Your task to perform on an android device: turn off improve location accuracy Image 0: 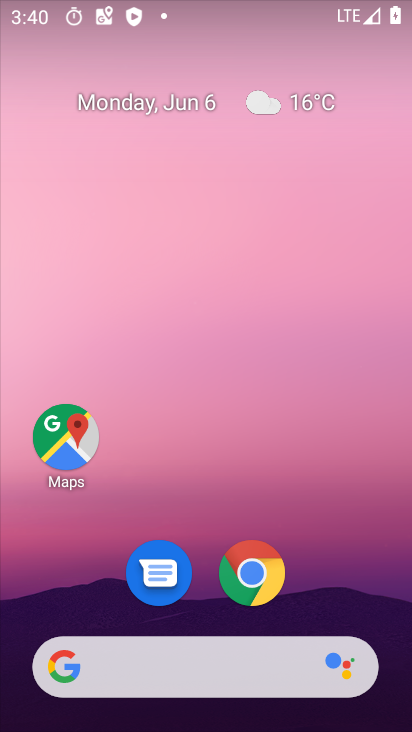
Step 0: drag from (372, 613) to (370, 217)
Your task to perform on an android device: turn off improve location accuracy Image 1: 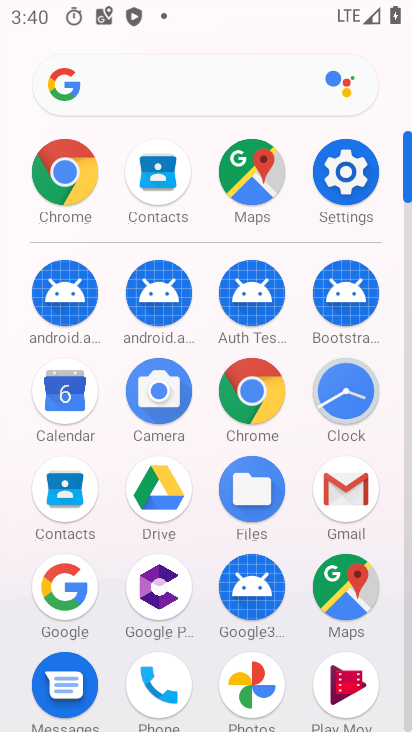
Step 1: click (349, 191)
Your task to perform on an android device: turn off improve location accuracy Image 2: 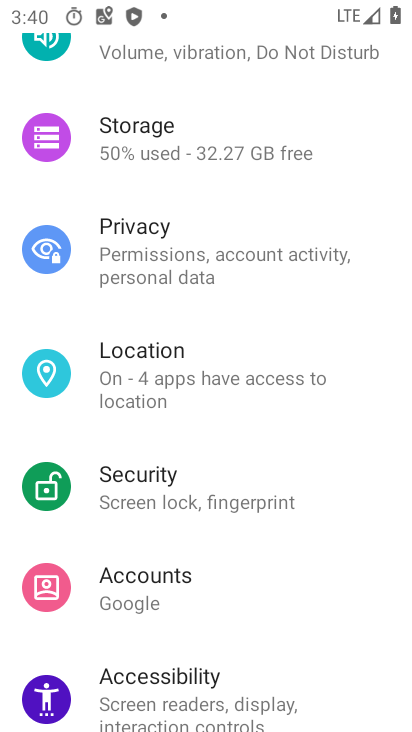
Step 2: click (337, 366)
Your task to perform on an android device: turn off improve location accuracy Image 3: 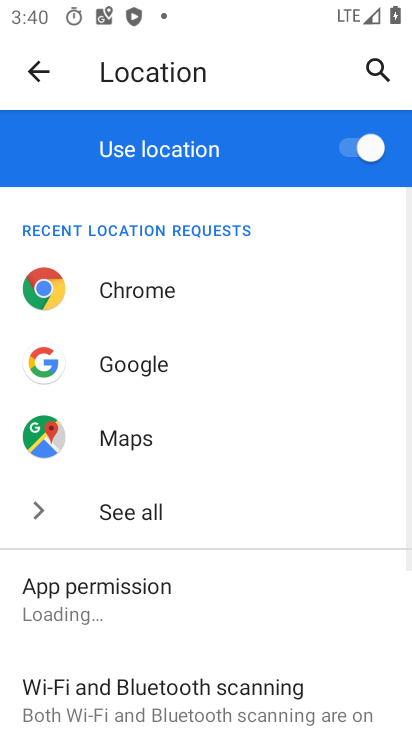
Step 3: drag from (330, 540) to (332, 476)
Your task to perform on an android device: turn off improve location accuracy Image 4: 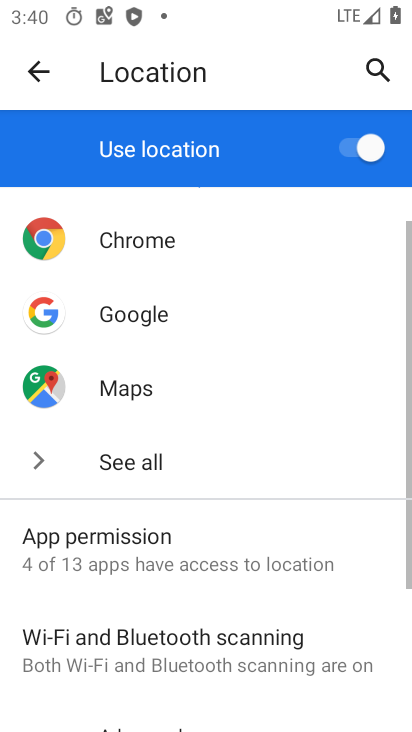
Step 4: drag from (335, 533) to (337, 457)
Your task to perform on an android device: turn off improve location accuracy Image 5: 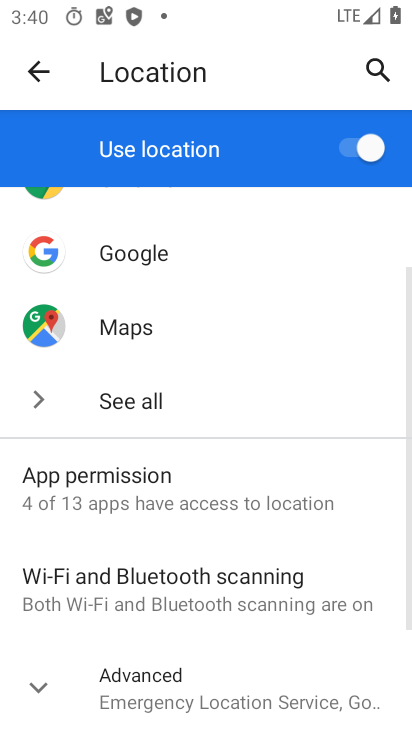
Step 5: drag from (344, 553) to (346, 434)
Your task to perform on an android device: turn off improve location accuracy Image 6: 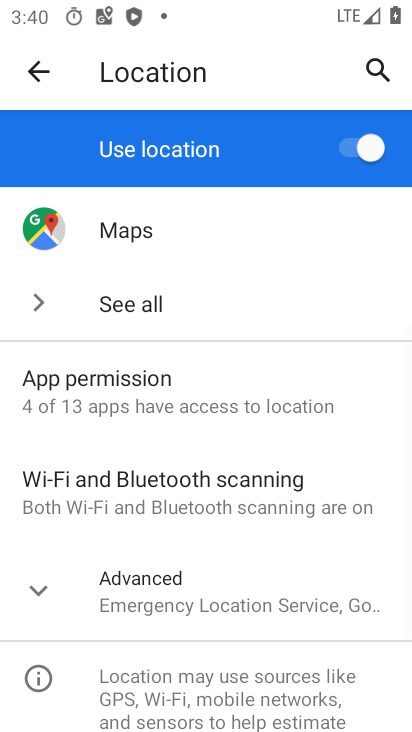
Step 6: drag from (349, 566) to (360, 385)
Your task to perform on an android device: turn off improve location accuracy Image 7: 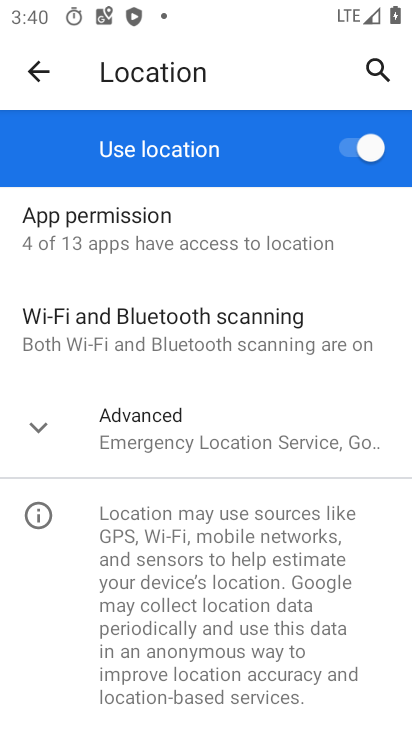
Step 7: click (268, 459)
Your task to perform on an android device: turn off improve location accuracy Image 8: 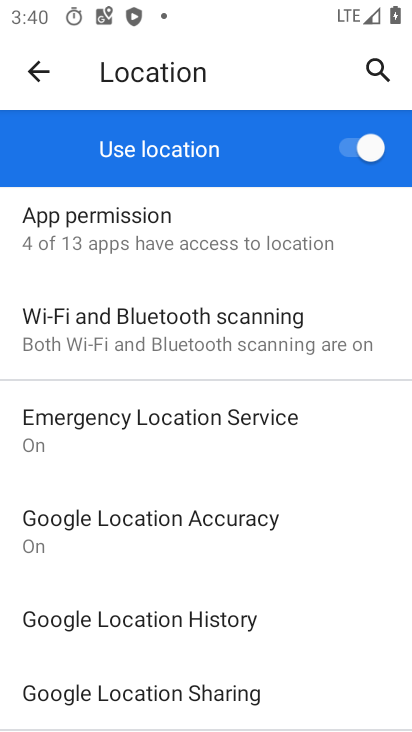
Step 8: drag from (317, 588) to (323, 493)
Your task to perform on an android device: turn off improve location accuracy Image 9: 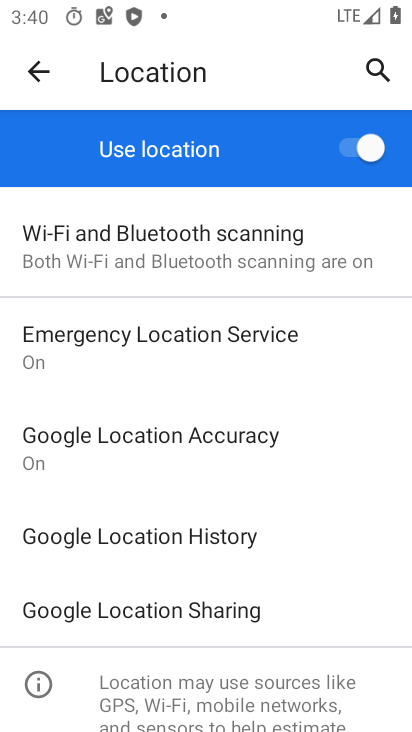
Step 9: drag from (321, 582) to (333, 509)
Your task to perform on an android device: turn off improve location accuracy Image 10: 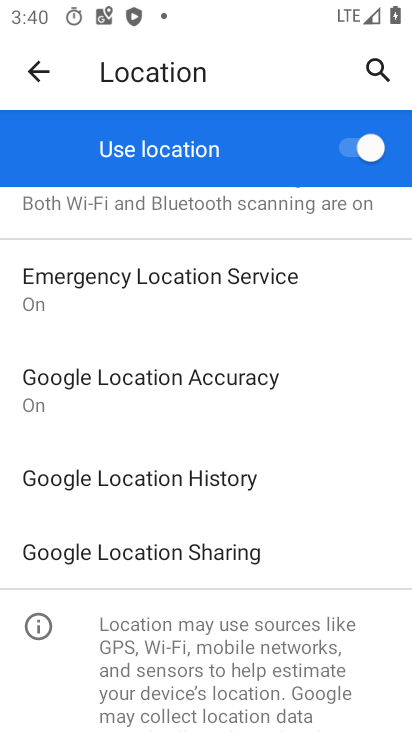
Step 10: click (240, 390)
Your task to perform on an android device: turn off improve location accuracy Image 11: 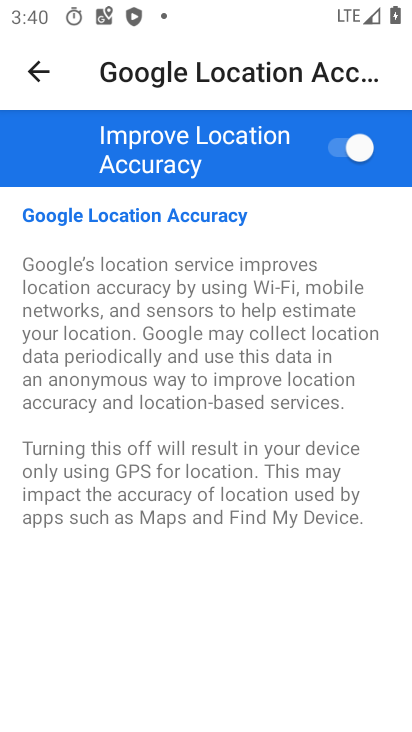
Step 11: click (360, 154)
Your task to perform on an android device: turn off improve location accuracy Image 12: 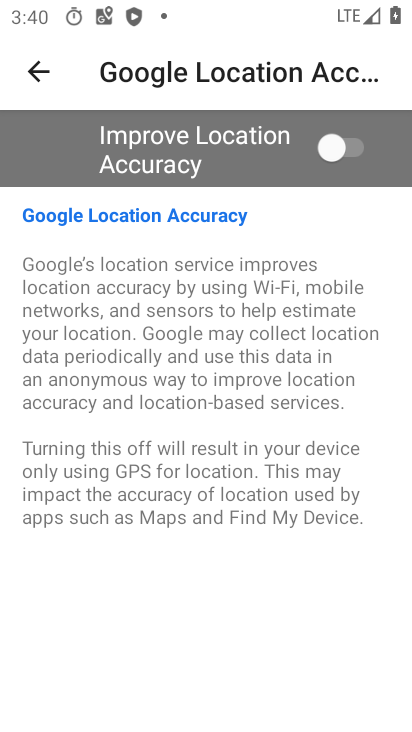
Step 12: task complete